Your task to perform on an android device: Go to CNN.com Image 0: 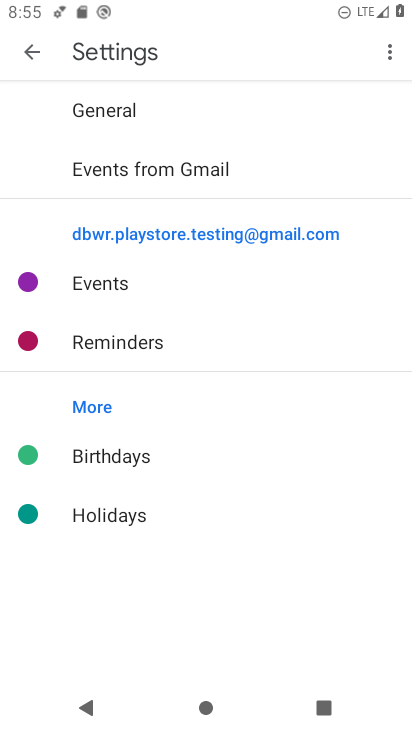
Step 0: press home button
Your task to perform on an android device: Go to CNN.com Image 1: 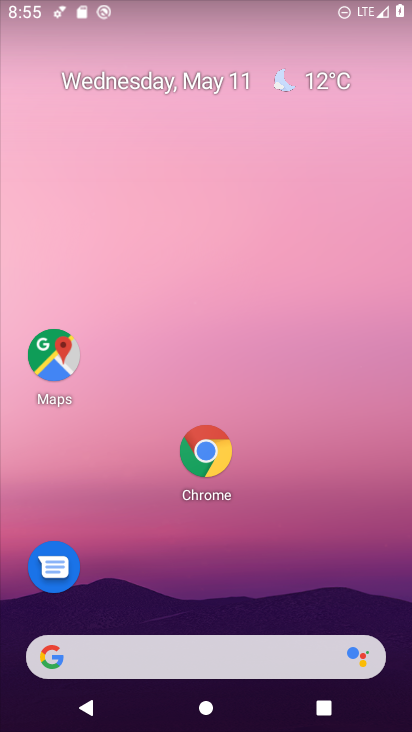
Step 1: drag from (168, 659) to (408, 77)
Your task to perform on an android device: Go to CNN.com Image 2: 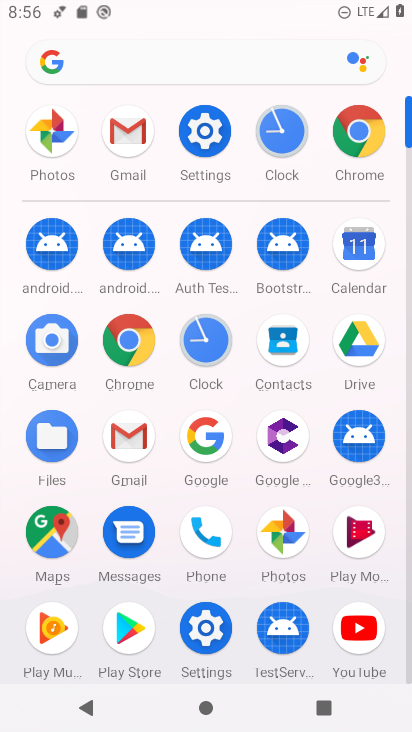
Step 2: click (361, 140)
Your task to perform on an android device: Go to CNN.com Image 3: 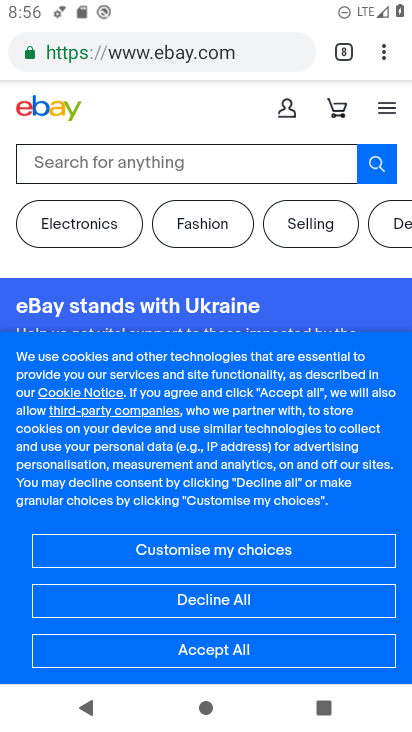
Step 3: drag from (381, 51) to (261, 101)
Your task to perform on an android device: Go to CNN.com Image 4: 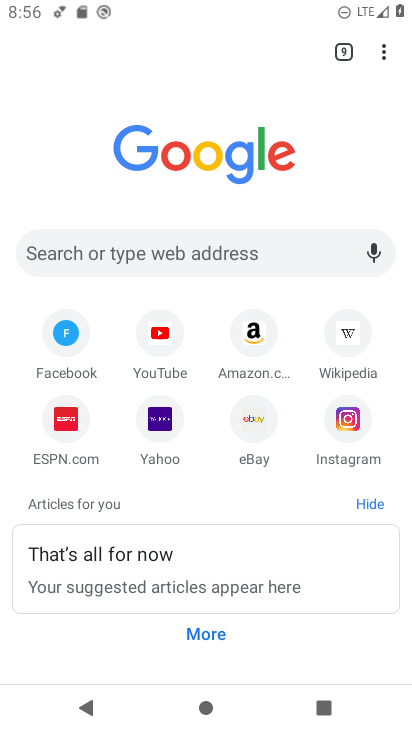
Step 4: click (139, 249)
Your task to perform on an android device: Go to CNN.com Image 5: 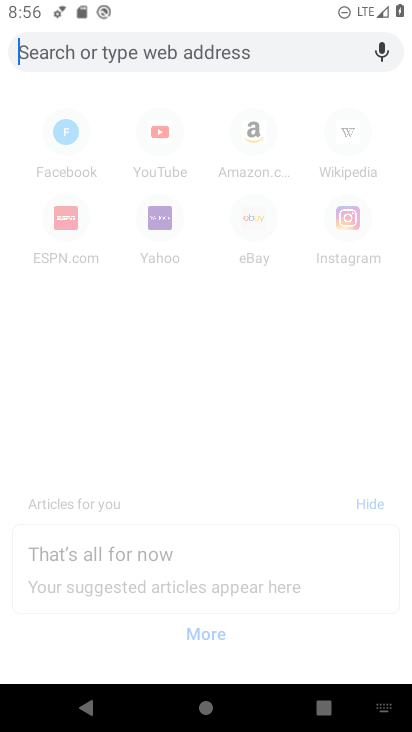
Step 5: type "cnn.com"
Your task to perform on an android device: Go to CNN.com Image 6: 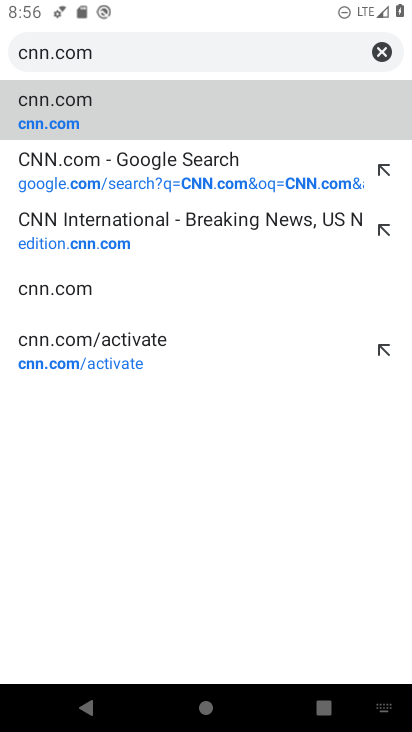
Step 6: click (73, 123)
Your task to perform on an android device: Go to CNN.com Image 7: 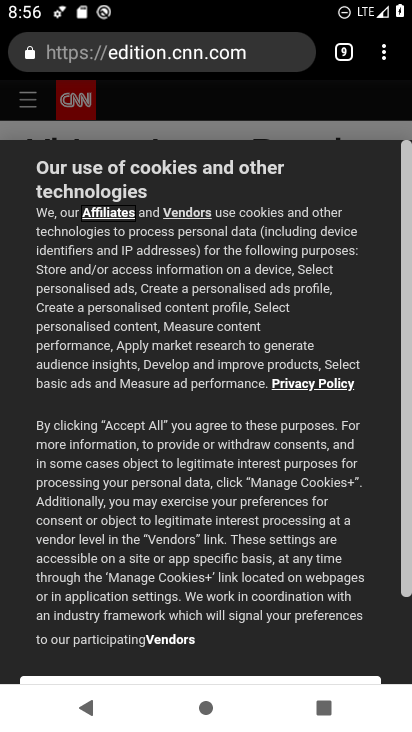
Step 7: task complete